Your task to perform on an android device: toggle location history Image 0: 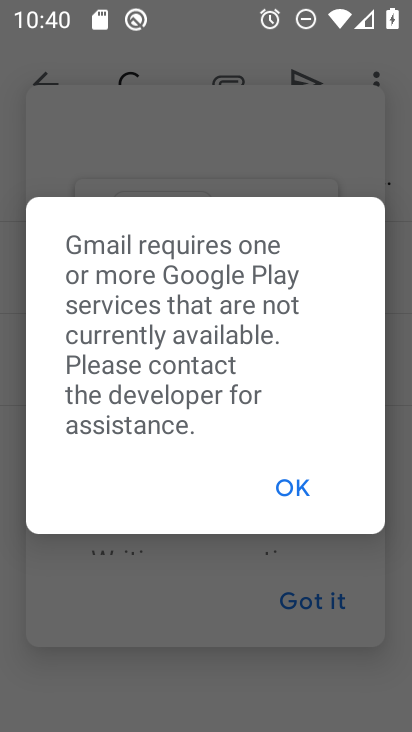
Step 0: press home button
Your task to perform on an android device: toggle location history Image 1: 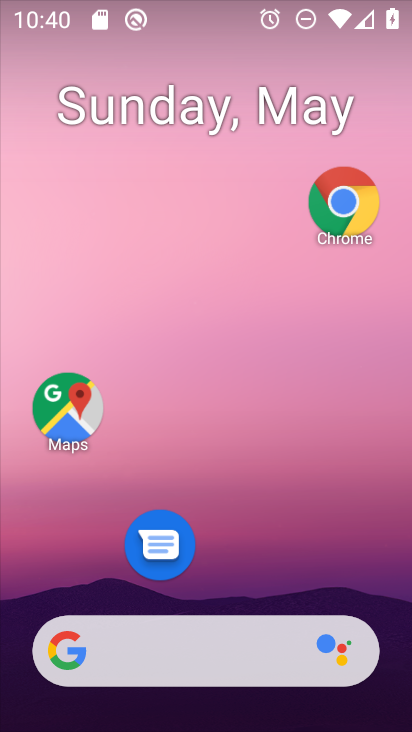
Step 1: drag from (283, 538) to (296, 166)
Your task to perform on an android device: toggle location history Image 2: 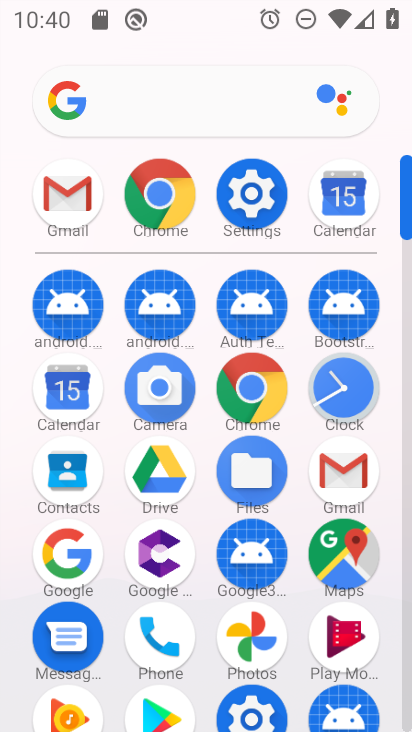
Step 2: click (246, 181)
Your task to perform on an android device: toggle location history Image 3: 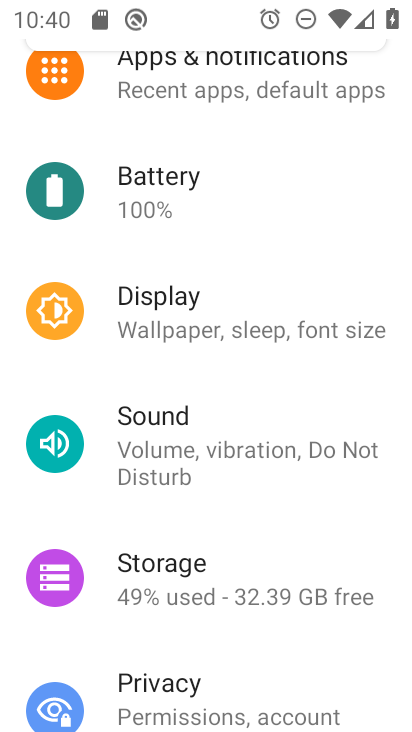
Step 3: drag from (203, 316) to (255, 144)
Your task to perform on an android device: toggle location history Image 4: 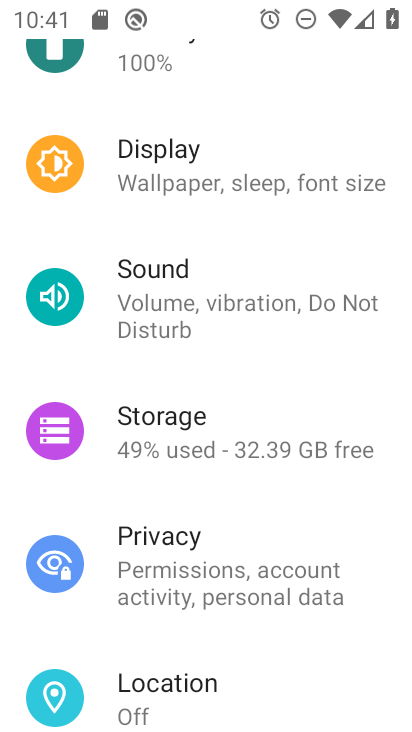
Step 4: drag from (227, 560) to (259, 262)
Your task to perform on an android device: toggle location history Image 5: 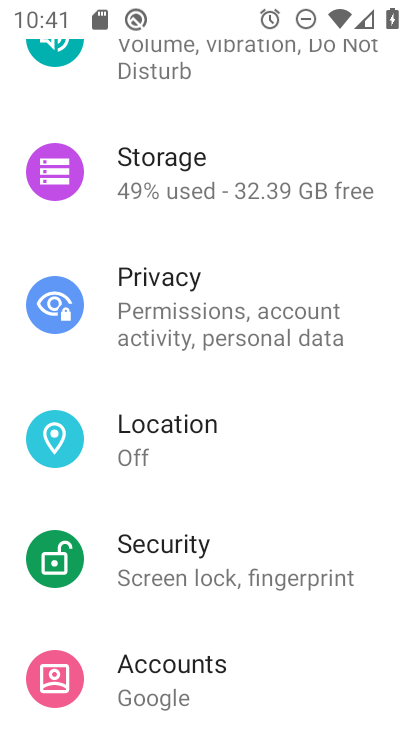
Step 5: click (213, 449)
Your task to perform on an android device: toggle location history Image 6: 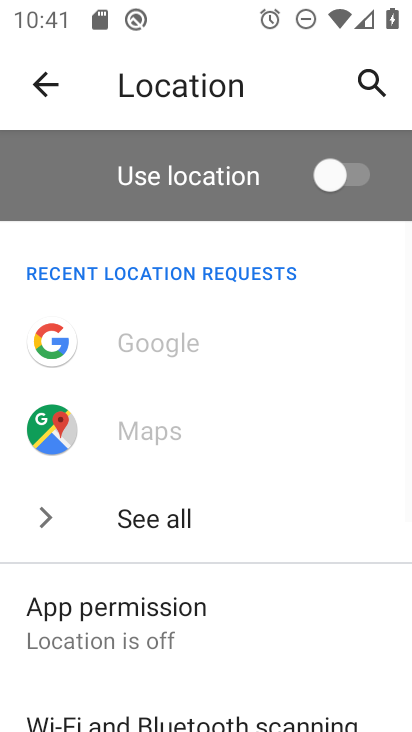
Step 6: drag from (259, 343) to (310, 187)
Your task to perform on an android device: toggle location history Image 7: 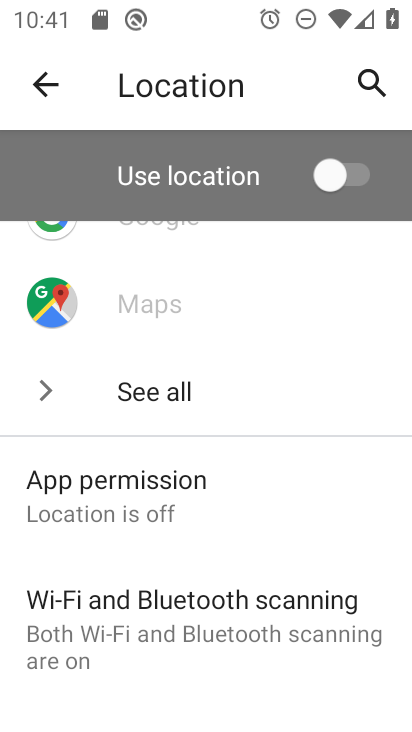
Step 7: drag from (198, 534) to (278, 341)
Your task to perform on an android device: toggle location history Image 8: 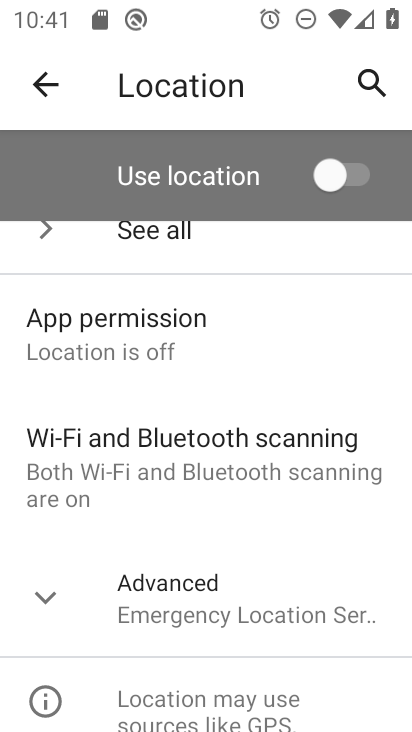
Step 8: drag from (255, 536) to (311, 394)
Your task to perform on an android device: toggle location history Image 9: 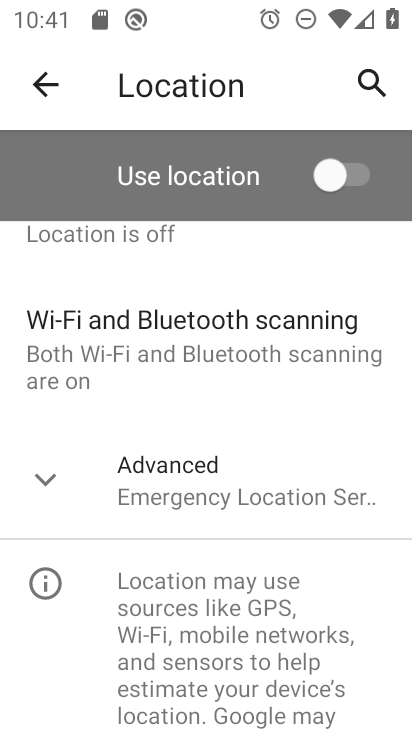
Step 9: click (181, 479)
Your task to perform on an android device: toggle location history Image 10: 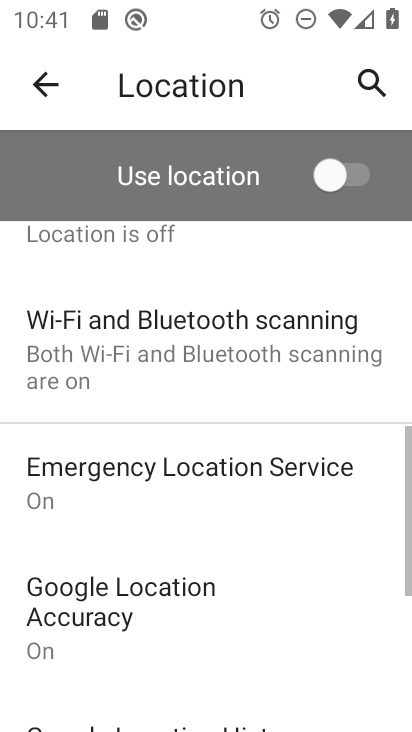
Step 10: drag from (144, 603) to (139, 367)
Your task to perform on an android device: toggle location history Image 11: 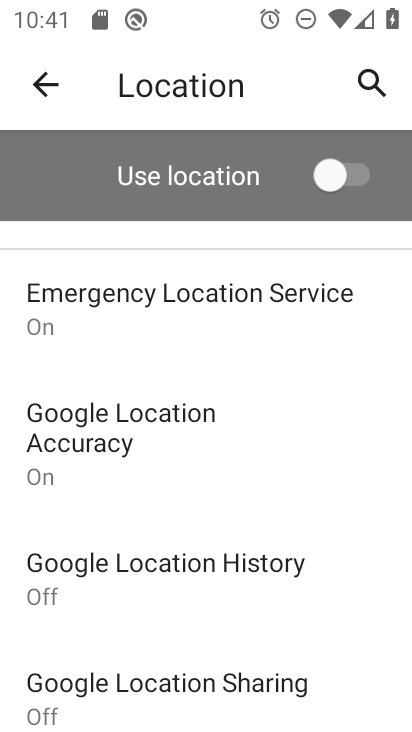
Step 11: click (141, 560)
Your task to perform on an android device: toggle location history Image 12: 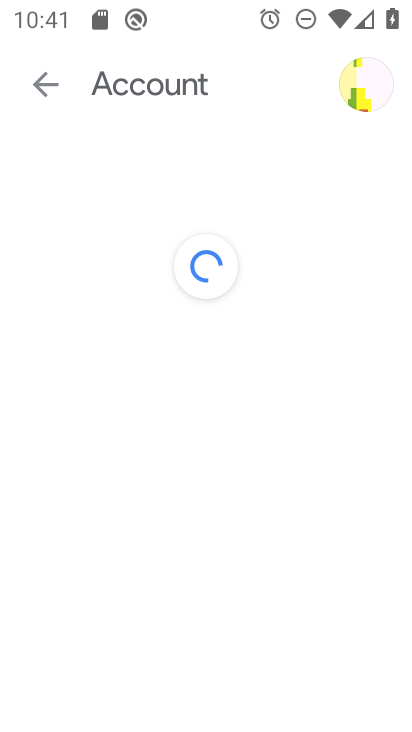
Step 12: drag from (268, 531) to (315, 352)
Your task to perform on an android device: toggle location history Image 13: 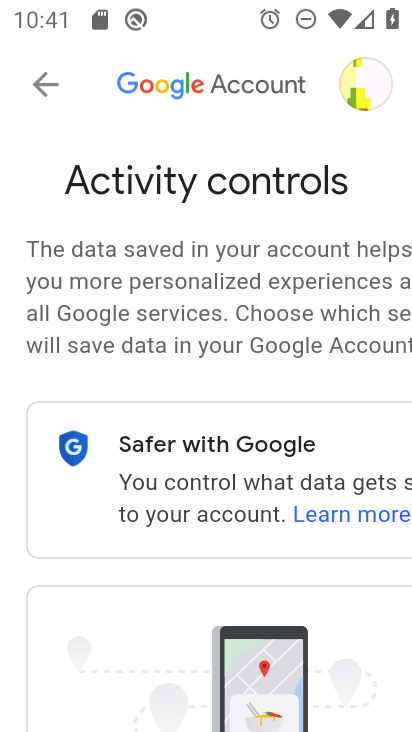
Step 13: drag from (309, 525) to (409, 158)
Your task to perform on an android device: toggle location history Image 14: 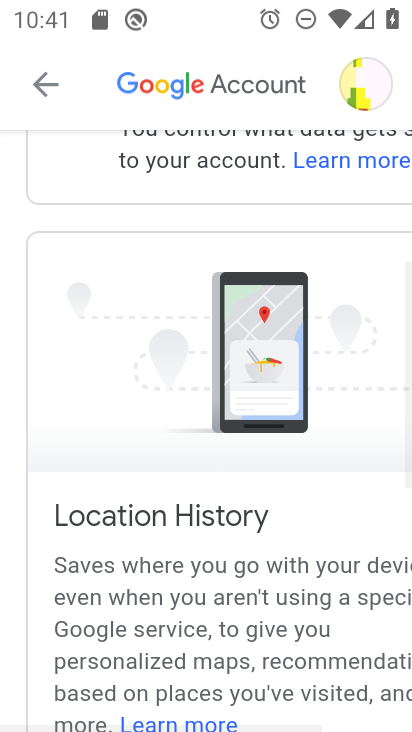
Step 14: drag from (342, 572) to (348, 211)
Your task to perform on an android device: toggle location history Image 15: 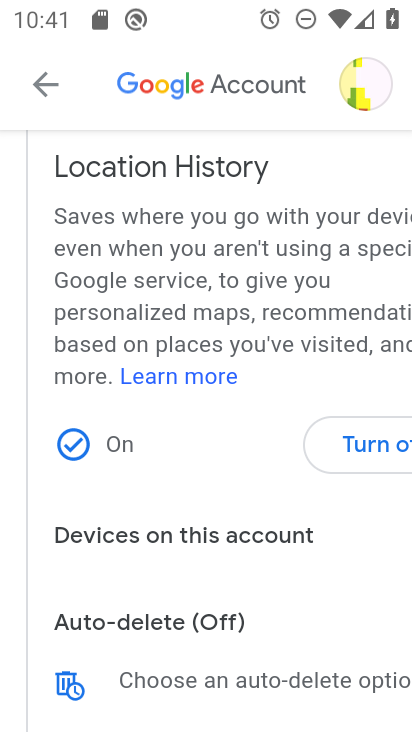
Step 15: click (366, 436)
Your task to perform on an android device: toggle location history Image 16: 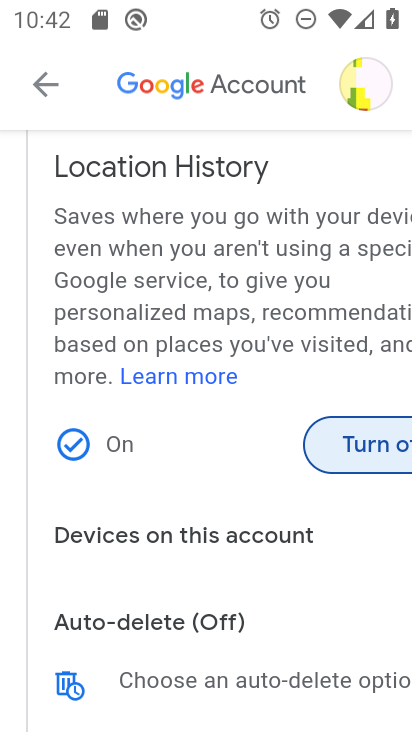
Step 16: click (372, 426)
Your task to perform on an android device: toggle location history Image 17: 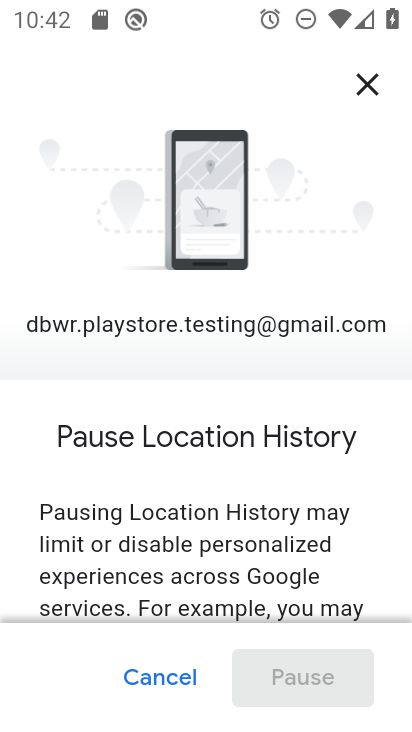
Step 17: drag from (343, 367) to (404, 157)
Your task to perform on an android device: toggle location history Image 18: 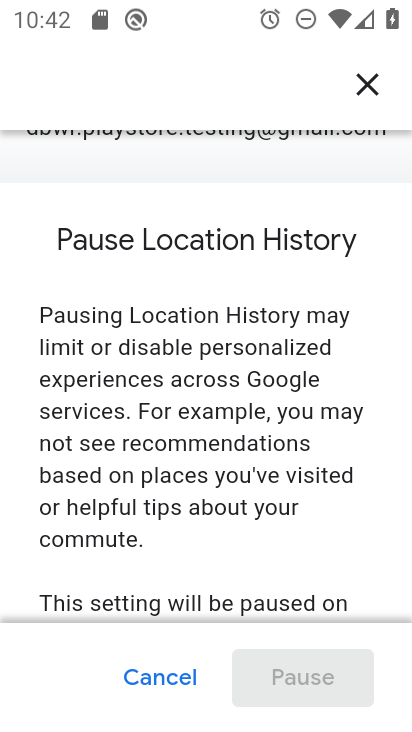
Step 18: drag from (260, 542) to (348, 181)
Your task to perform on an android device: toggle location history Image 19: 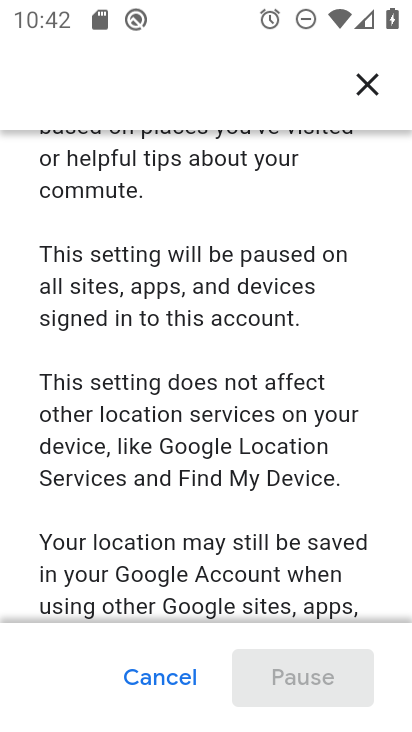
Step 19: drag from (267, 527) to (303, 158)
Your task to perform on an android device: toggle location history Image 20: 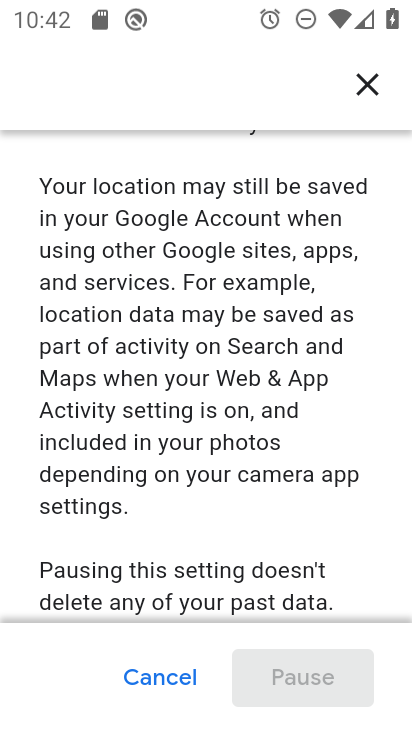
Step 20: drag from (233, 462) to (295, 91)
Your task to perform on an android device: toggle location history Image 21: 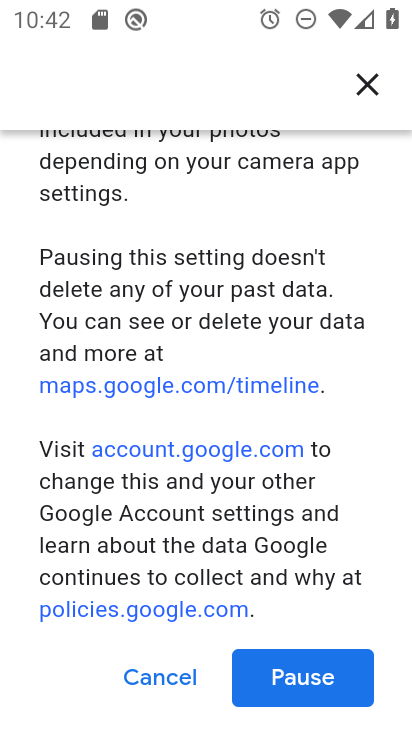
Step 21: click (290, 708)
Your task to perform on an android device: toggle location history Image 22: 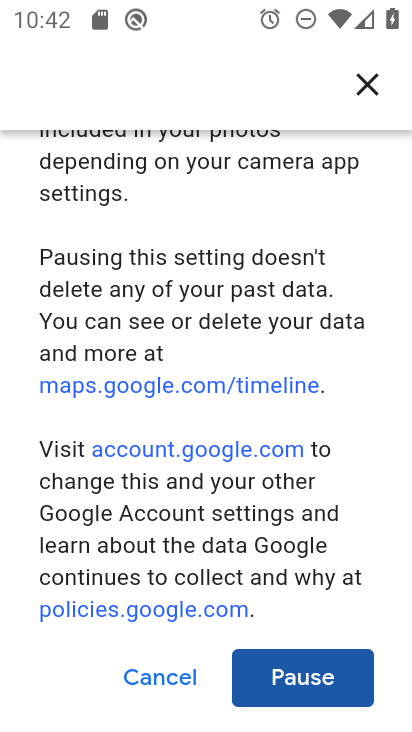
Step 22: click (284, 685)
Your task to perform on an android device: toggle location history Image 23: 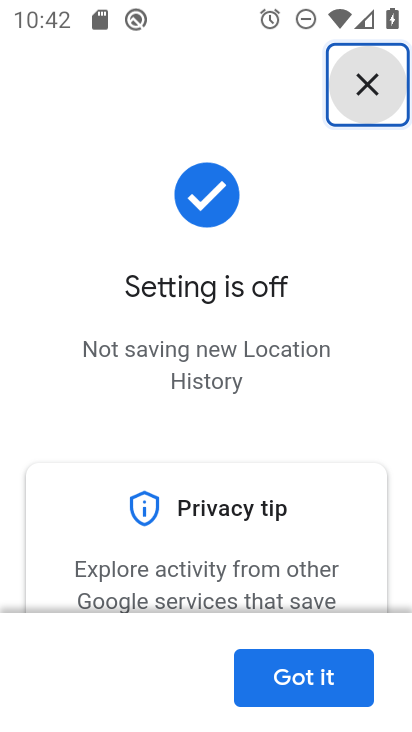
Step 23: task complete